Your task to perform on an android device: What's on my calendar tomorrow? Image 0: 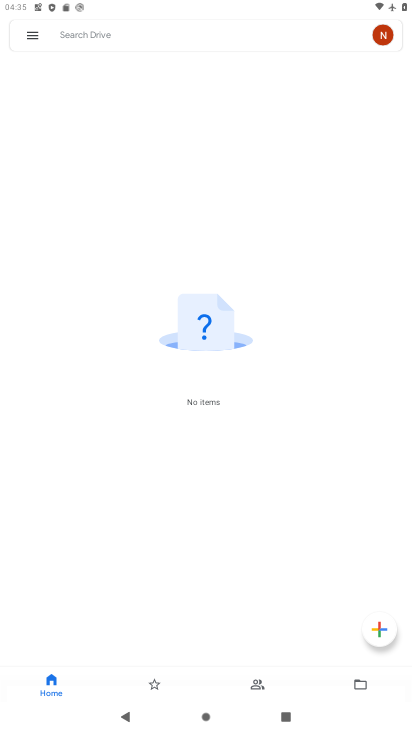
Step 0: press home button
Your task to perform on an android device: What's on my calendar tomorrow? Image 1: 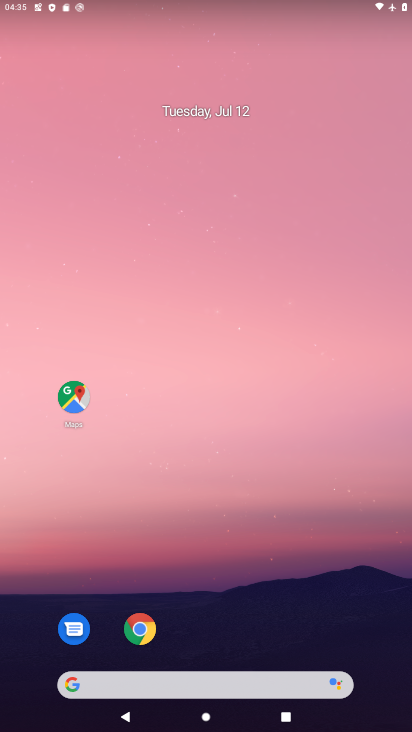
Step 1: drag from (278, 372) to (237, 50)
Your task to perform on an android device: What's on my calendar tomorrow? Image 2: 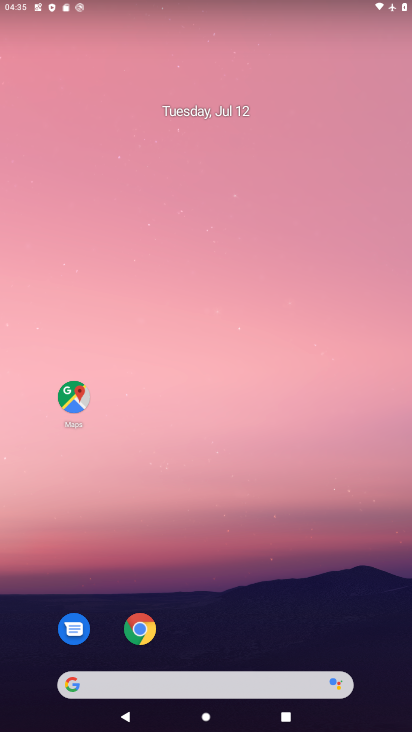
Step 2: drag from (305, 565) to (281, 43)
Your task to perform on an android device: What's on my calendar tomorrow? Image 3: 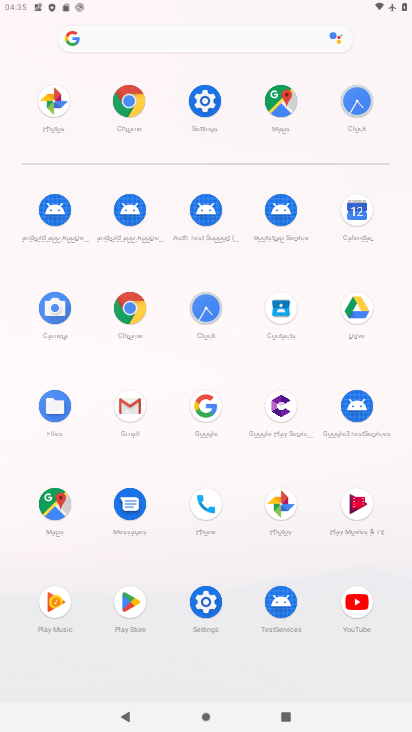
Step 3: click (357, 208)
Your task to perform on an android device: What's on my calendar tomorrow? Image 4: 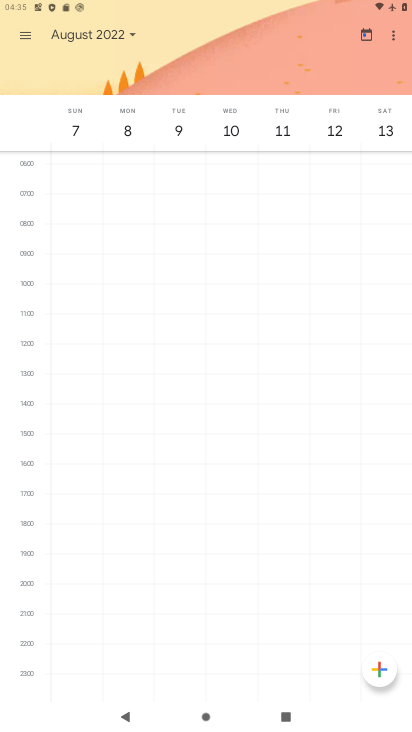
Step 4: click (81, 33)
Your task to perform on an android device: What's on my calendar tomorrow? Image 5: 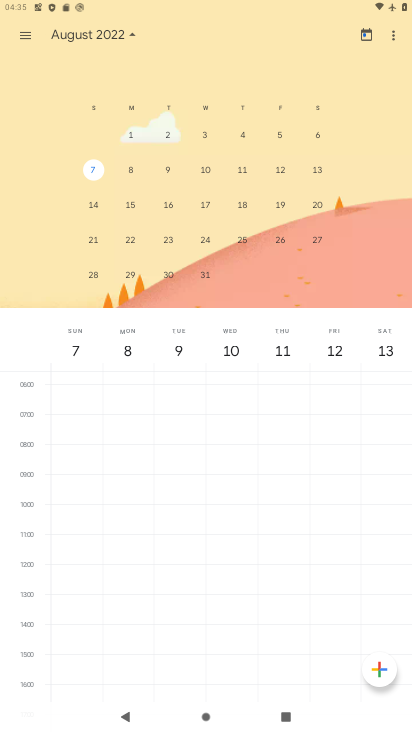
Step 5: drag from (92, 162) to (407, 180)
Your task to perform on an android device: What's on my calendar tomorrow? Image 6: 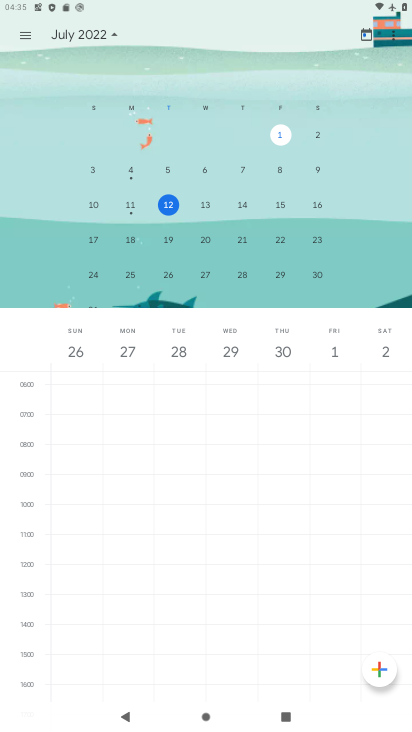
Step 6: click (205, 205)
Your task to perform on an android device: What's on my calendar tomorrow? Image 7: 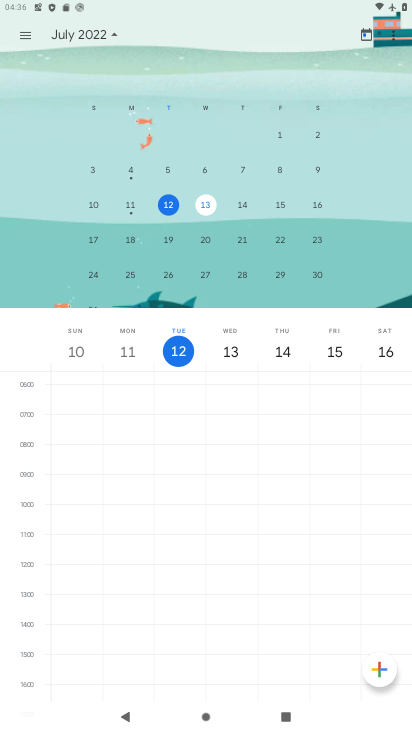
Step 7: click (199, 200)
Your task to perform on an android device: What's on my calendar tomorrow? Image 8: 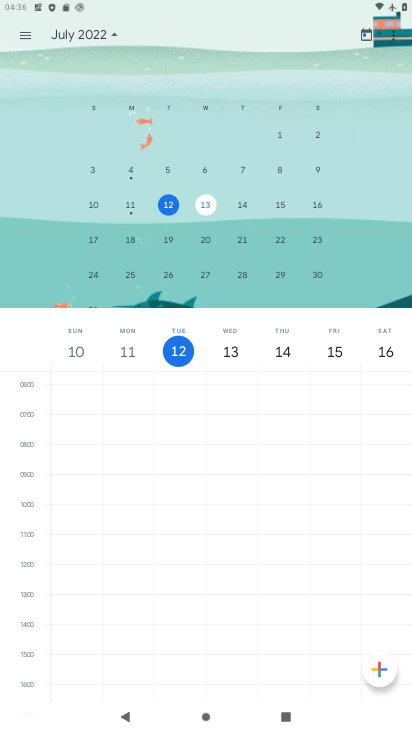
Step 8: click (238, 357)
Your task to perform on an android device: What's on my calendar tomorrow? Image 9: 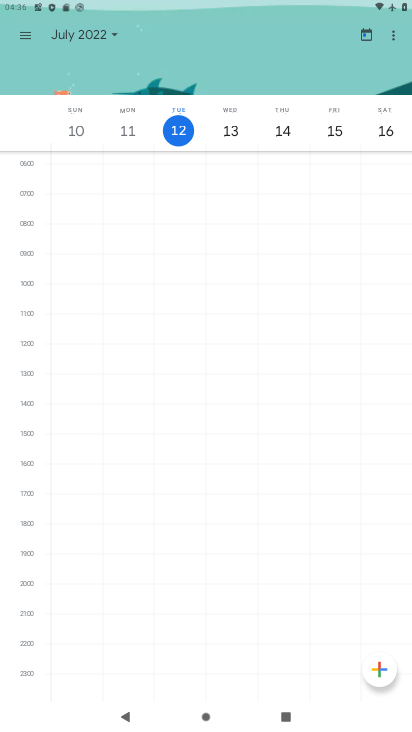
Step 9: click (235, 128)
Your task to perform on an android device: What's on my calendar tomorrow? Image 10: 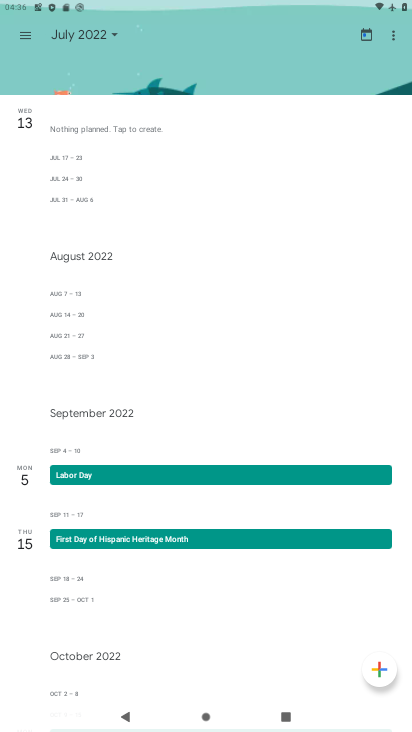
Step 10: task complete